Your task to perform on an android device: set an alarm Image 0: 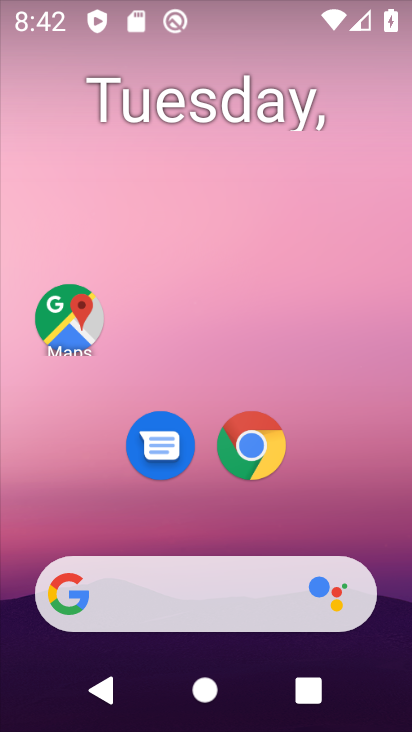
Step 0: click (273, 185)
Your task to perform on an android device: set an alarm Image 1: 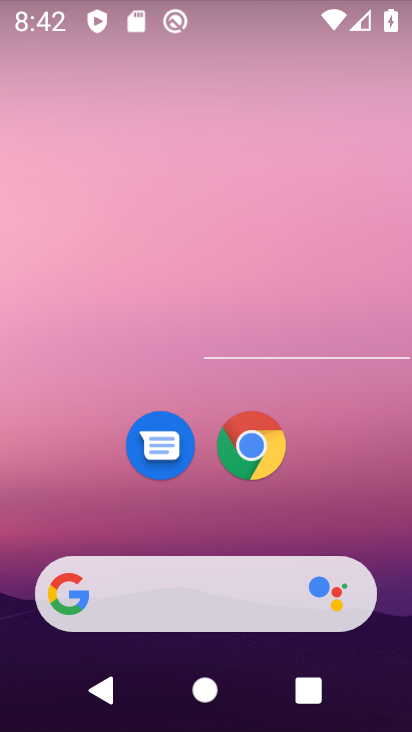
Step 1: drag from (136, 165) to (185, 53)
Your task to perform on an android device: set an alarm Image 2: 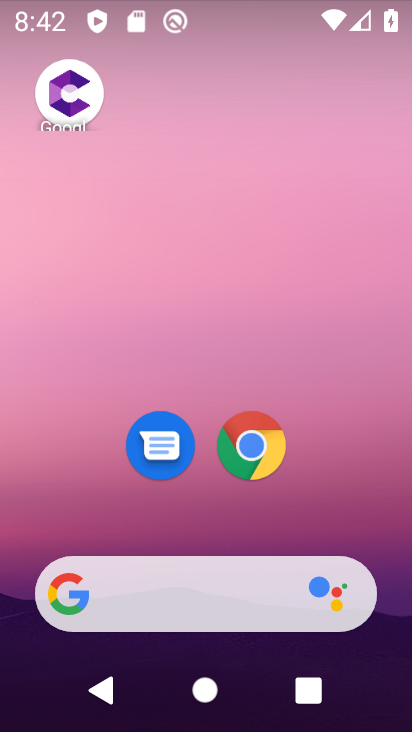
Step 2: drag from (133, 298) to (212, 124)
Your task to perform on an android device: set an alarm Image 3: 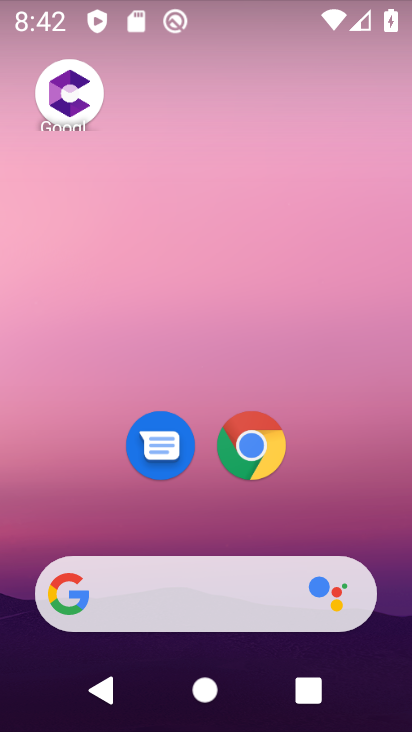
Step 3: drag from (63, 476) to (257, 111)
Your task to perform on an android device: set an alarm Image 4: 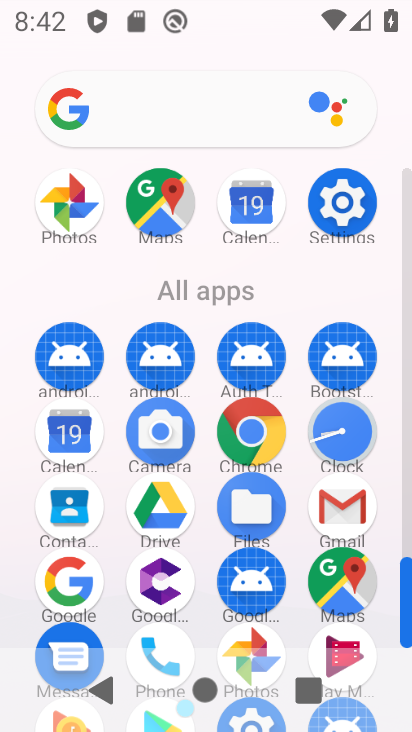
Step 4: click (316, 427)
Your task to perform on an android device: set an alarm Image 5: 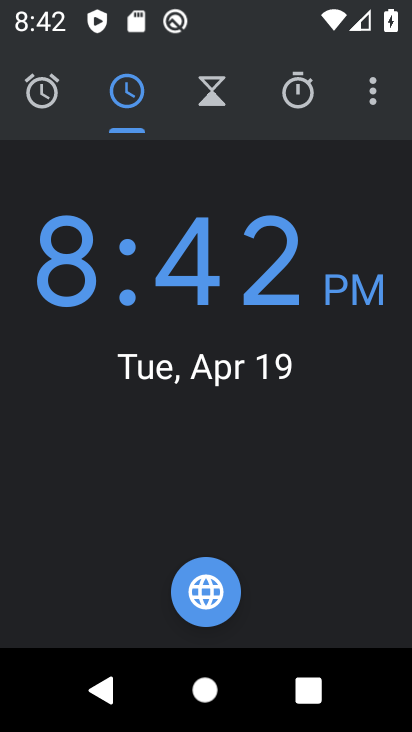
Step 5: click (27, 85)
Your task to perform on an android device: set an alarm Image 6: 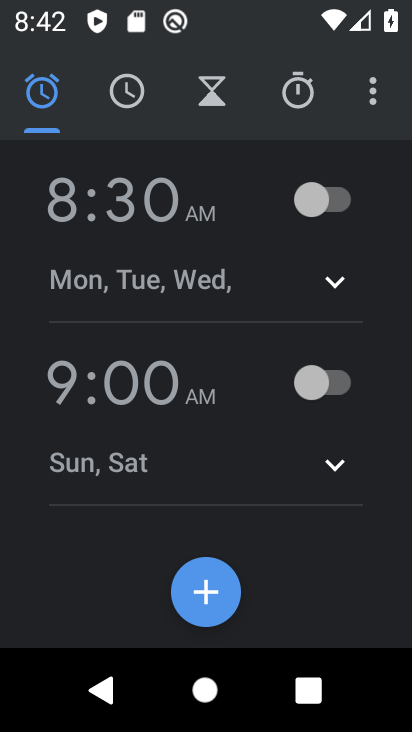
Step 6: click (310, 195)
Your task to perform on an android device: set an alarm Image 7: 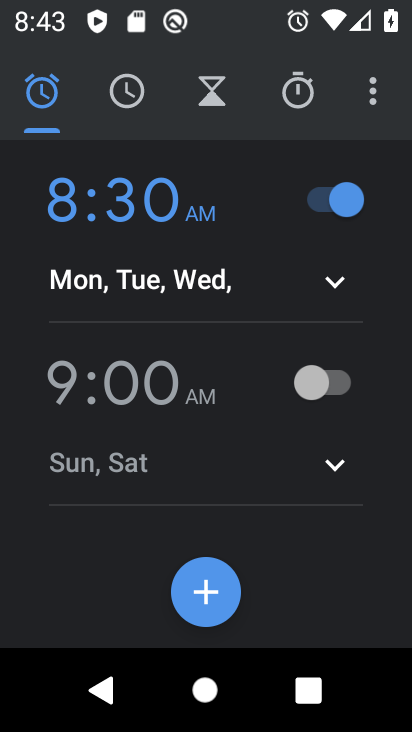
Step 7: task complete